Your task to perform on an android device: Delete the most recent email from tau.karenbrennan.1654798856749@gmail.com Image 0: 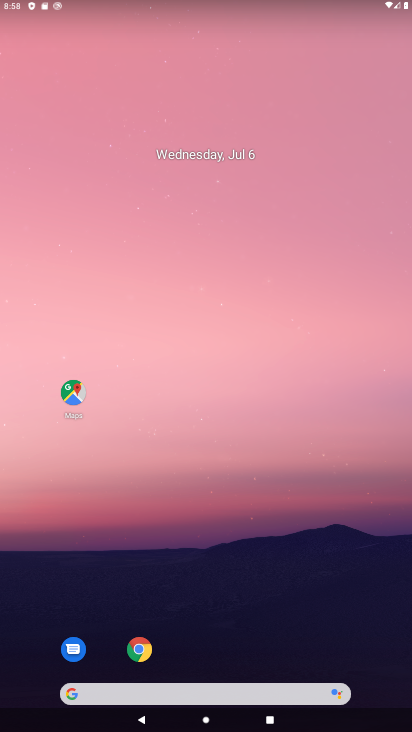
Step 0: drag from (334, 624) to (256, 68)
Your task to perform on an android device: Delete the most recent email from tau.karenbrennan.1654798856749@gmail.com Image 1: 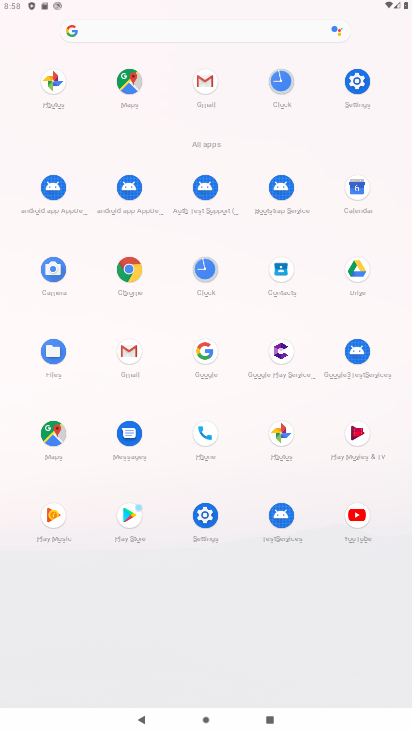
Step 1: click (215, 109)
Your task to perform on an android device: Delete the most recent email from tau.karenbrennan.1654798856749@gmail.com Image 2: 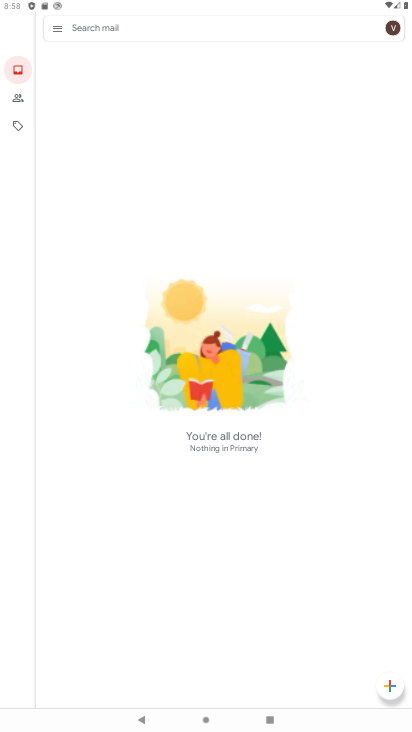
Step 2: task complete